Your task to perform on an android device: move an email to a new category in the gmail app Image 0: 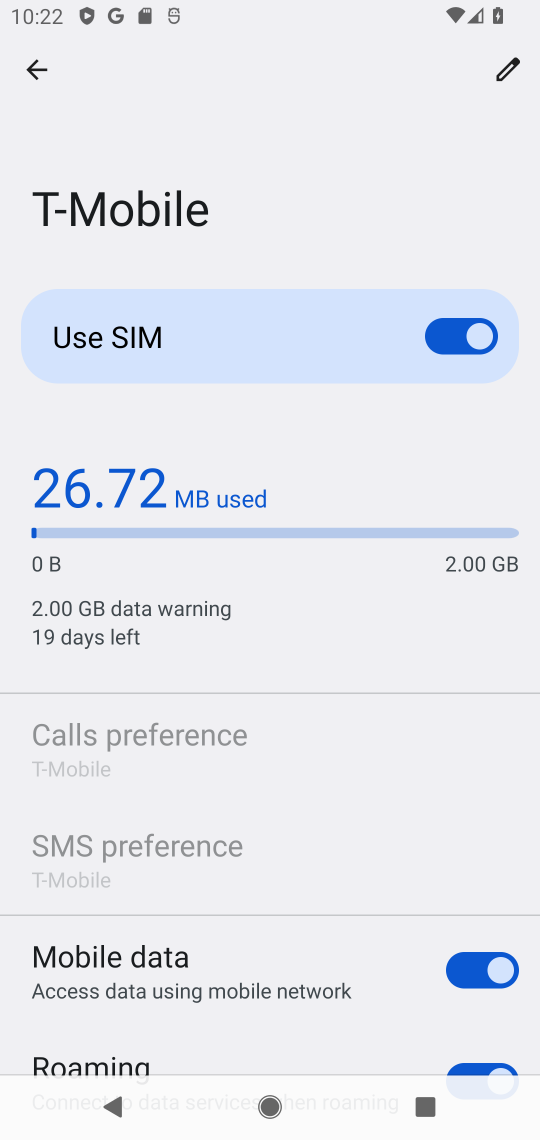
Step 0: press home button
Your task to perform on an android device: move an email to a new category in the gmail app Image 1: 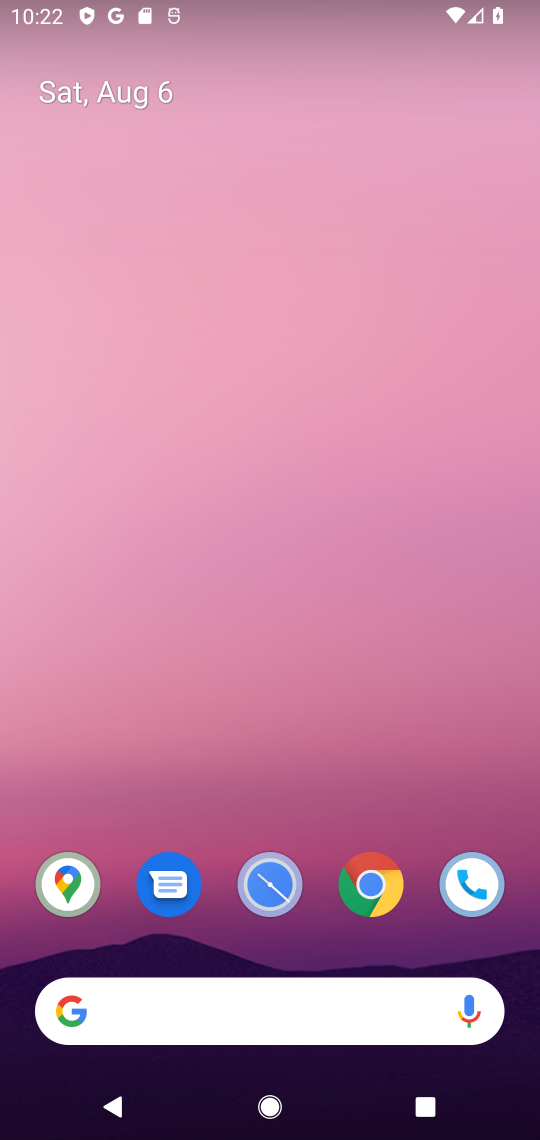
Step 1: drag from (424, 940) to (397, 95)
Your task to perform on an android device: move an email to a new category in the gmail app Image 2: 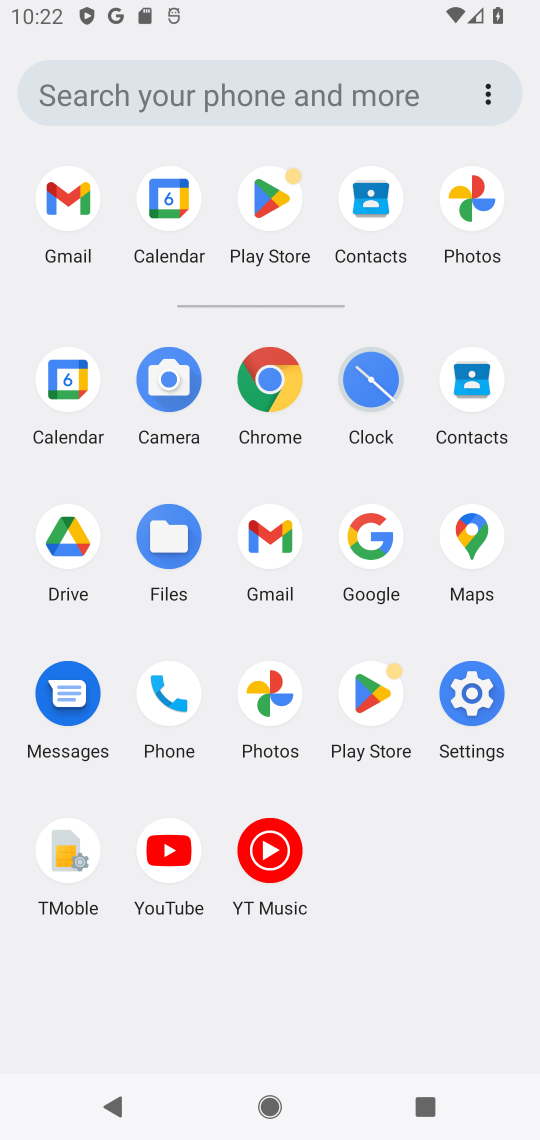
Step 2: click (272, 540)
Your task to perform on an android device: move an email to a new category in the gmail app Image 3: 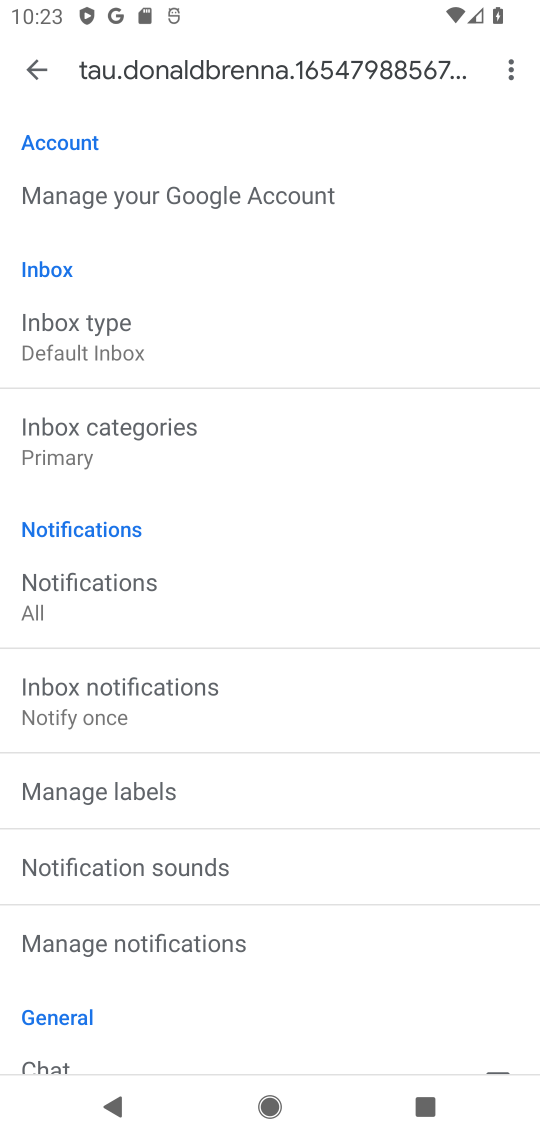
Step 3: press back button
Your task to perform on an android device: move an email to a new category in the gmail app Image 4: 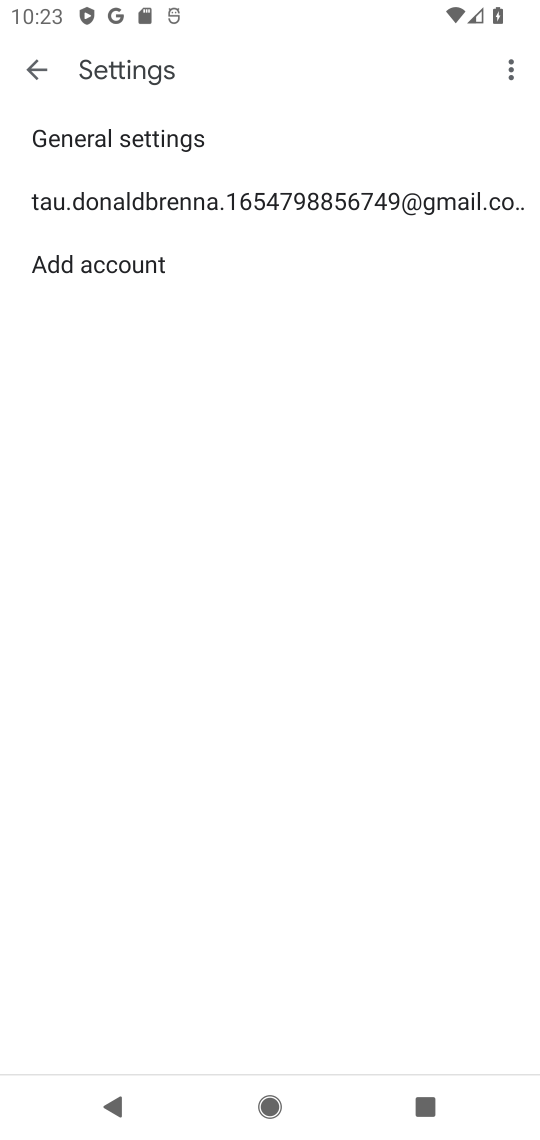
Step 4: press back button
Your task to perform on an android device: move an email to a new category in the gmail app Image 5: 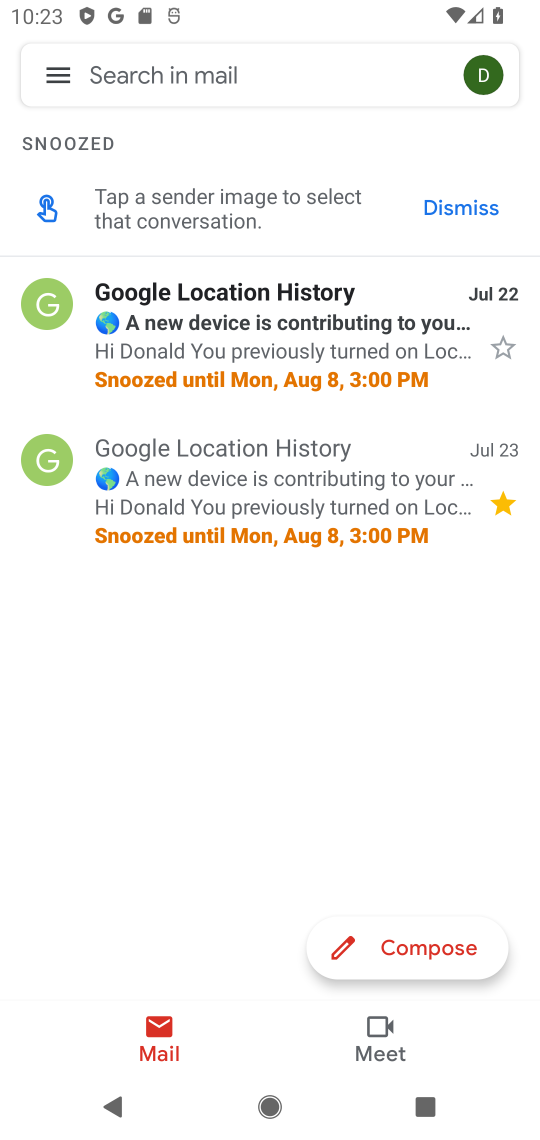
Step 5: click (57, 71)
Your task to perform on an android device: move an email to a new category in the gmail app Image 6: 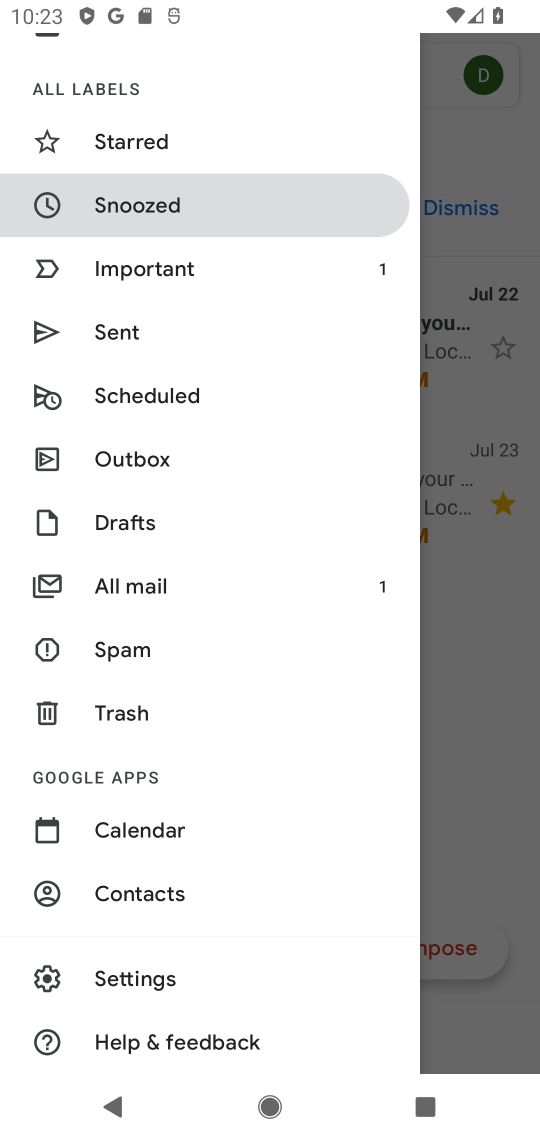
Step 6: click (141, 556)
Your task to perform on an android device: move an email to a new category in the gmail app Image 7: 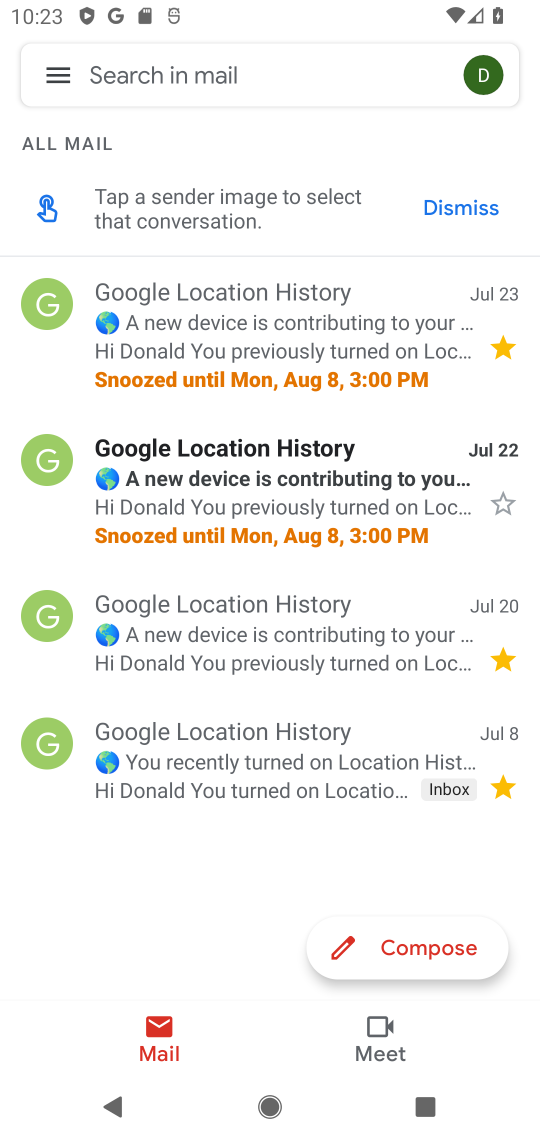
Step 7: click (286, 624)
Your task to perform on an android device: move an email to a new category in the gmail app Image 8: 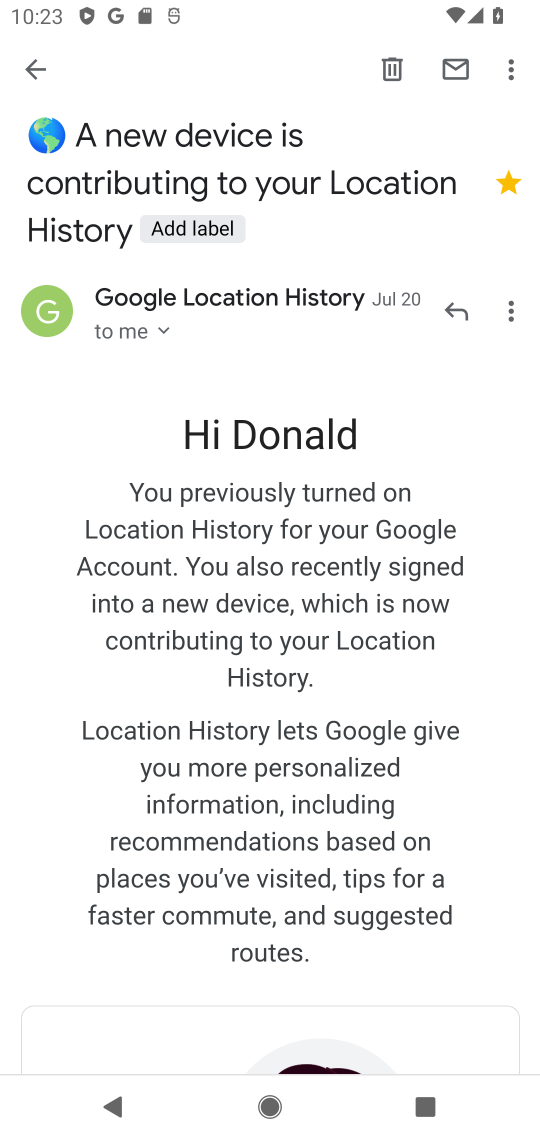
Step 8: click (506, 77)
Your task to perform on an android device: move an email to a new category in the gmail app Image 9: 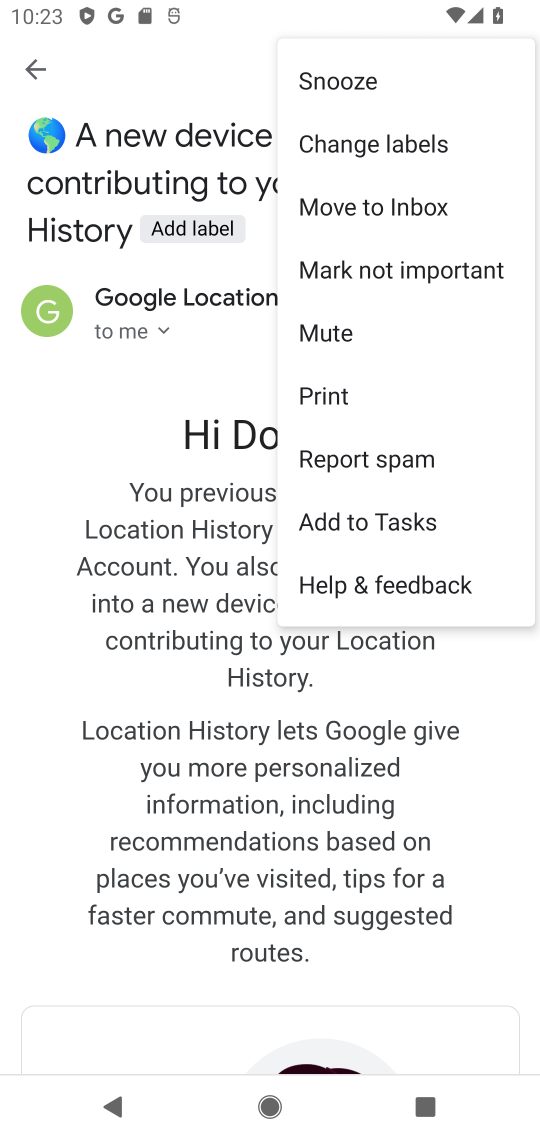
Step 9: click (356, 213)
Your task to perform on an android device: move an email to a new category in the gmail app Image 10: 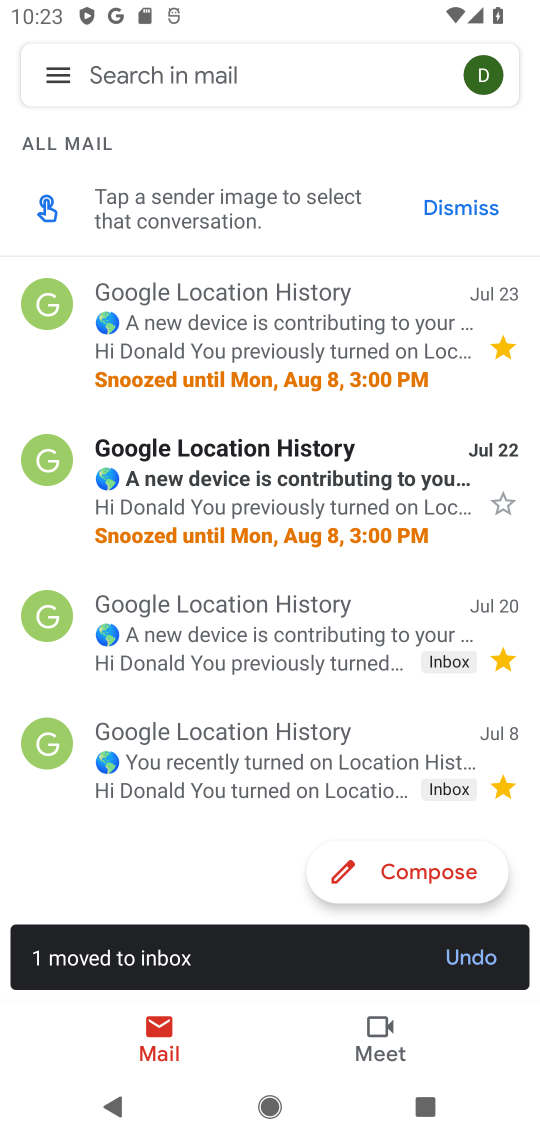
Step 10: task complete